Your task to perform on an android device: Open Google Image 0: 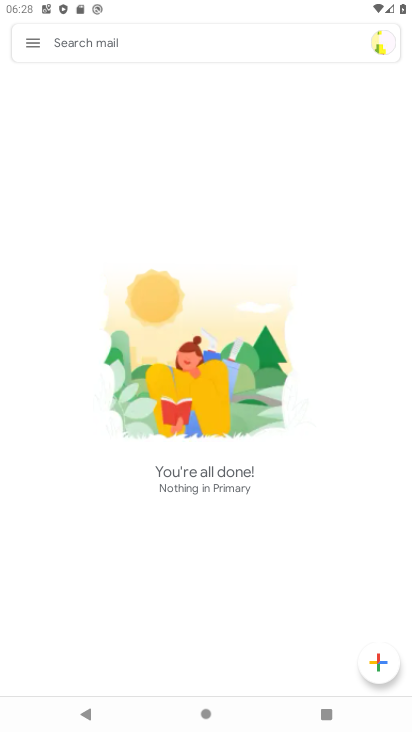
Step 0: drag from (256, 577) to (260, 275)
Your task to perform on an android device: Open Google Image 1: 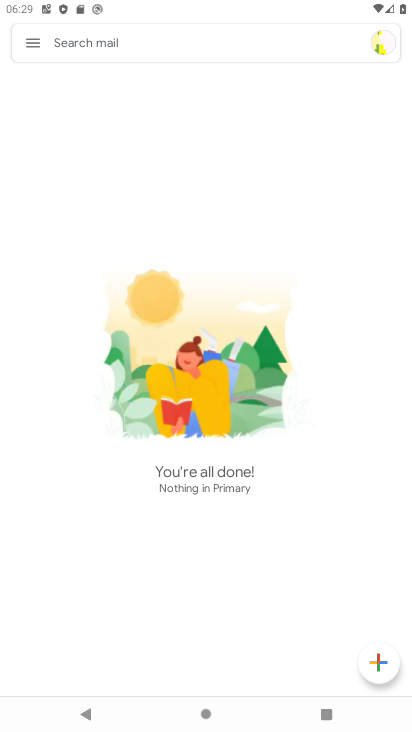
Step 1: press home button
Your task to perform on an android device: Open Google Image 2: 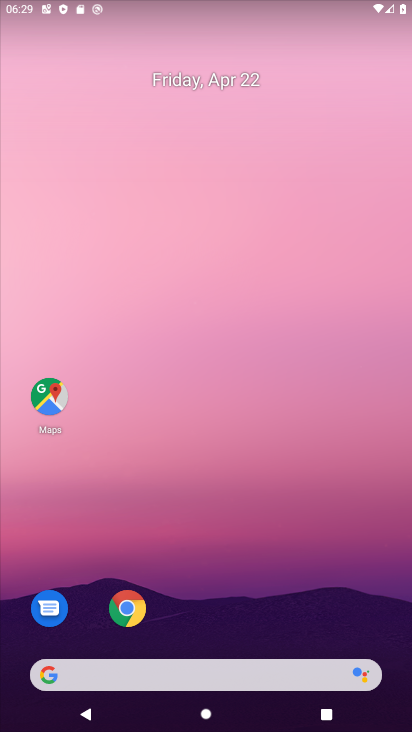
Step 2: click (131, 613)
Your task to perform on an android device: Open Google Image 3: 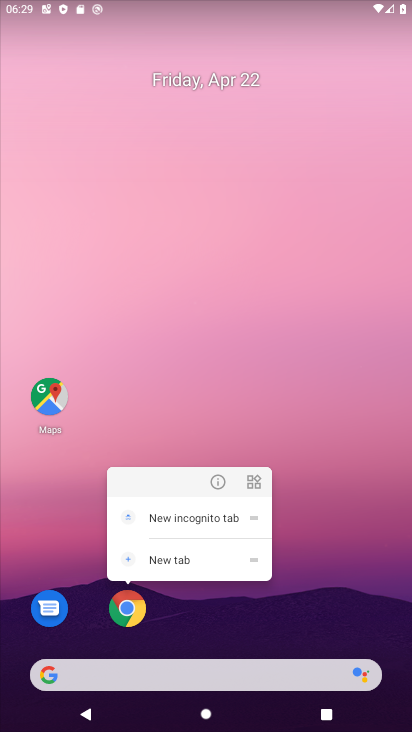
Step 3: click (131, 613)
Your task to perform on an android device: Open Google Image 4: 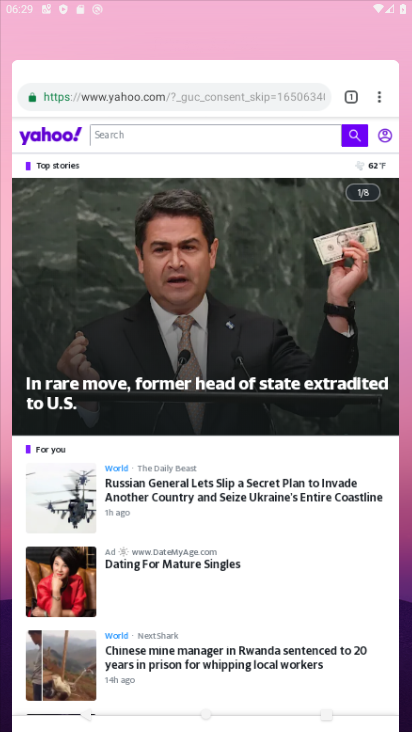
Step 4: click (126, 606)
Your task to perform on an android device: Open Google Image 5: 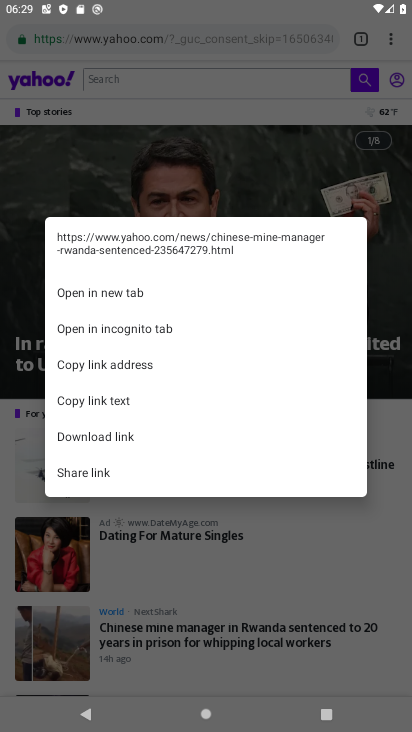
Step 5: task complete